Your task to perform on an android device: change the clock display to analog Image 0: 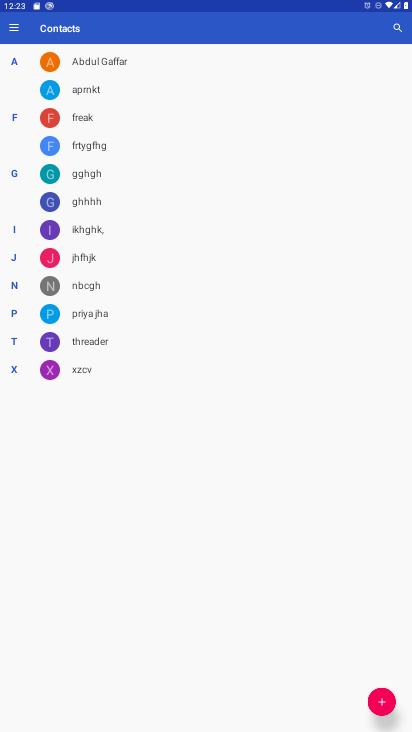
Step 0: press home button
Your task to perform on an android device: change the clock display to analog Image 1: 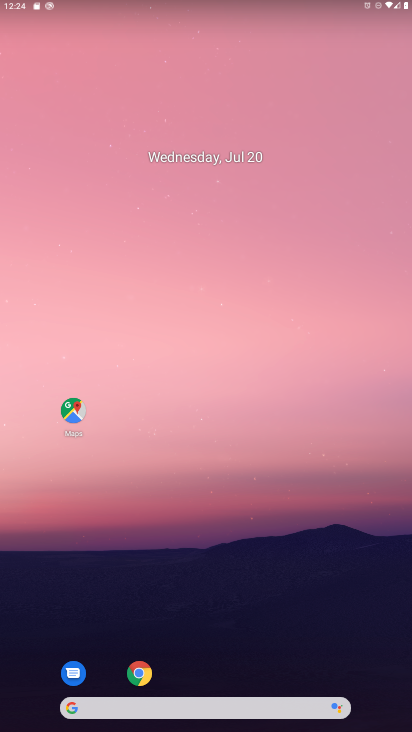
Step 1: drag from (167, 698) to (161, 148)
Your task to perform on an android device: change the clock display to analog Image 2: 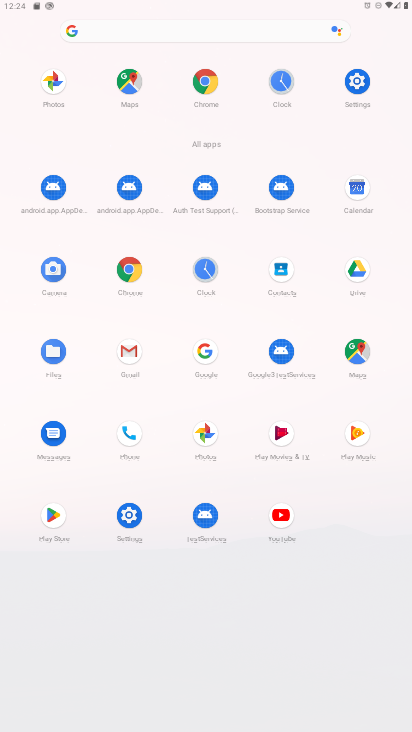
Step 2: click (196, 270)
Your task to perform on an android device: change the clock display to analog Image 3: 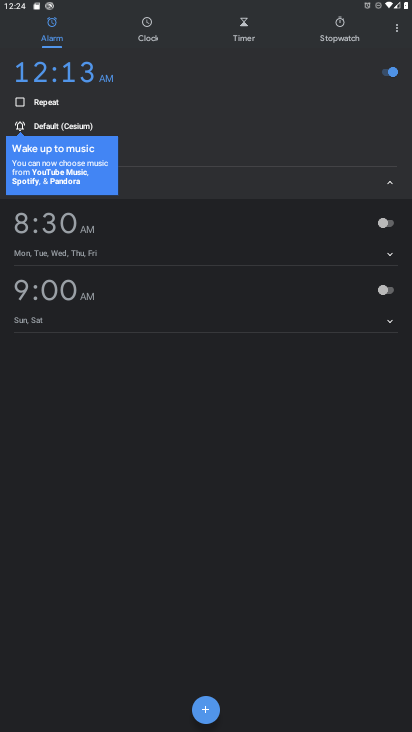
Step 3: click (401, 36)
Your task to perform on an android device: change the clock display to analog Image 4: 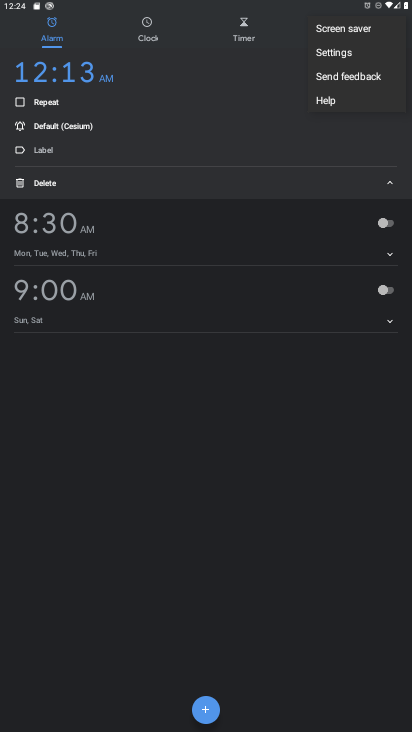
Step 4: click (338, 56)
Your task to perform on an android device: change the clock display to analog Image 5: 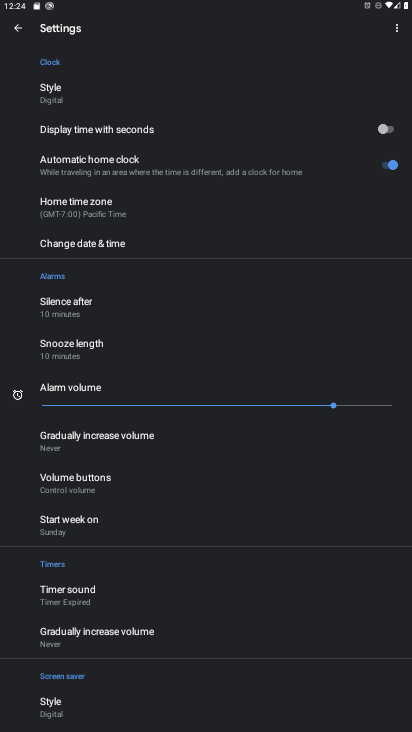
Step 5: click (76, 98)
Your task to perform on an android device: change the clock display to analog Image 6: 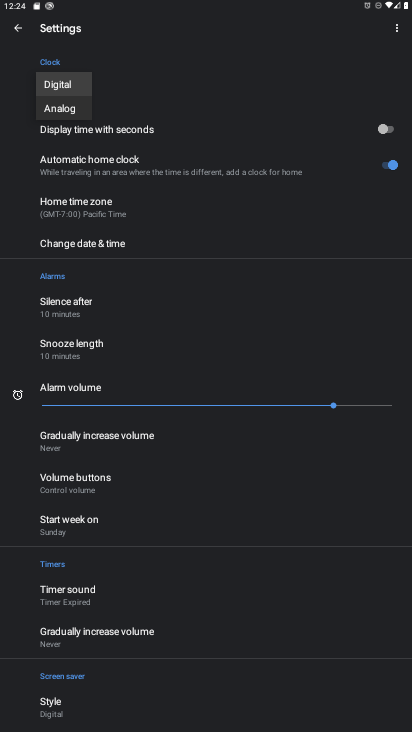
Step 6: click (76, 113)
Your task to perform on an android device: change the clock display to analog Image 7: 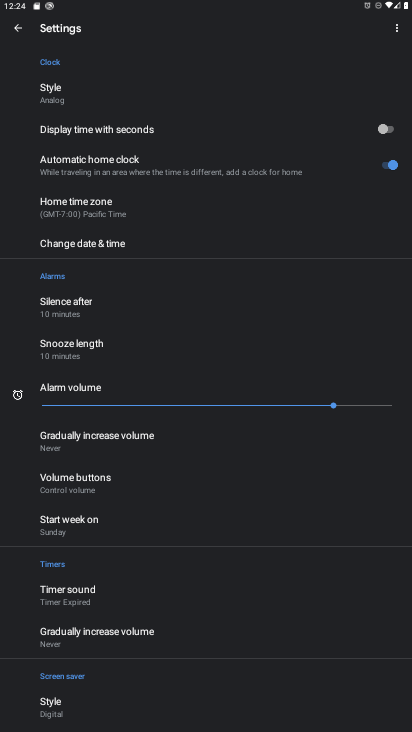
Step 7: task complete